Your task to perform on an android device: turn on notifications settings in the gmail app Image 0: 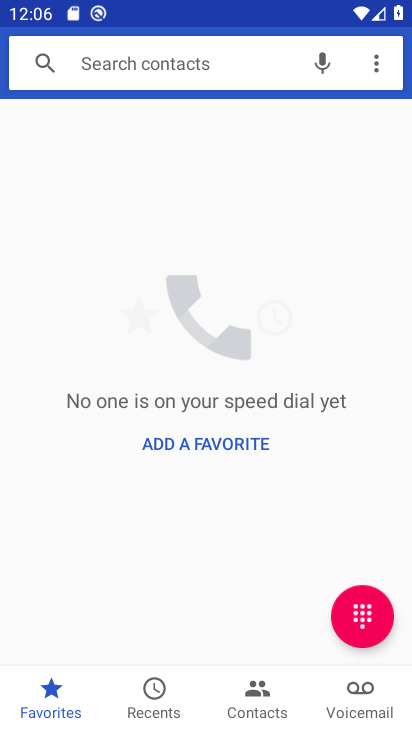
Step 0: press home button
Your task to perform on an android device: turn on notifications settings in the gmail app Image 1: 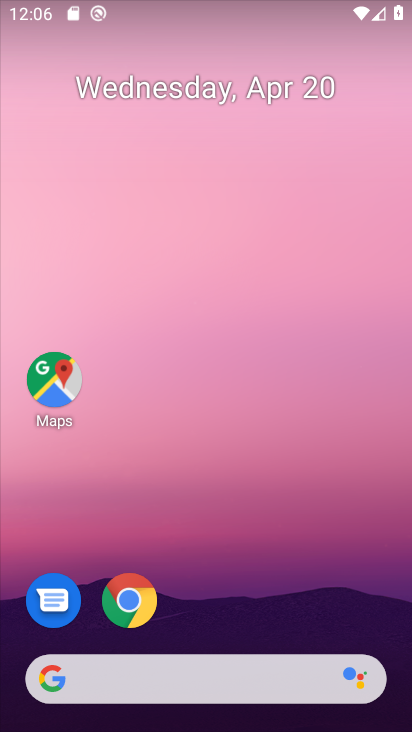
Step 1: drag from (347, 552) to (356, 164)
Your task to perform on an android device: turn on notifications settings in the gmail app Image 2: 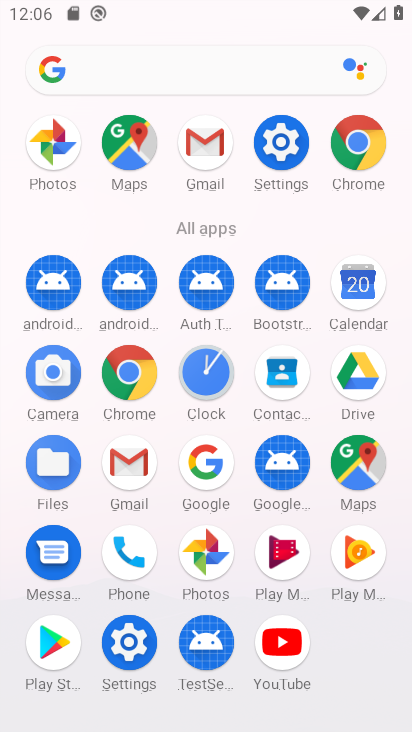
Step 2: click (139, 474)
Your task to perform on an android device: turn on notifications settings in the gmail app Image 3: 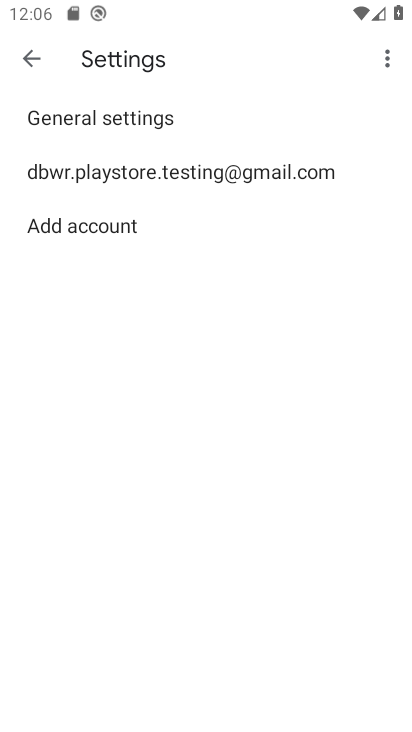
Step 3: click (231, 166)
Your task to perform on an android device: turn on notifications settings in the gmail app Image 4: 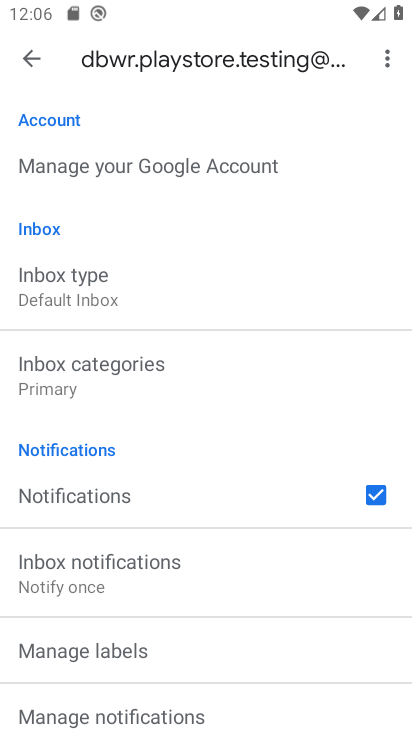
Step 4: click (125, 483)
Your task to perform on an android device: turn on notifications settings in the gmail app Image 5: 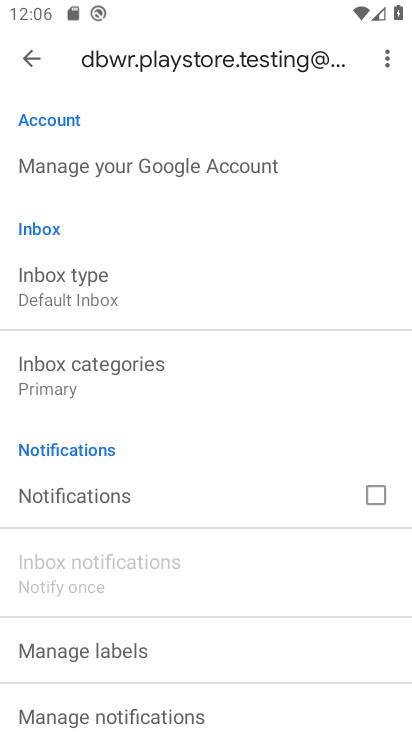
Step 5: click (125, 483)
Your task to perform on an android device: turn on notifications settings in the gmail app Image 6: 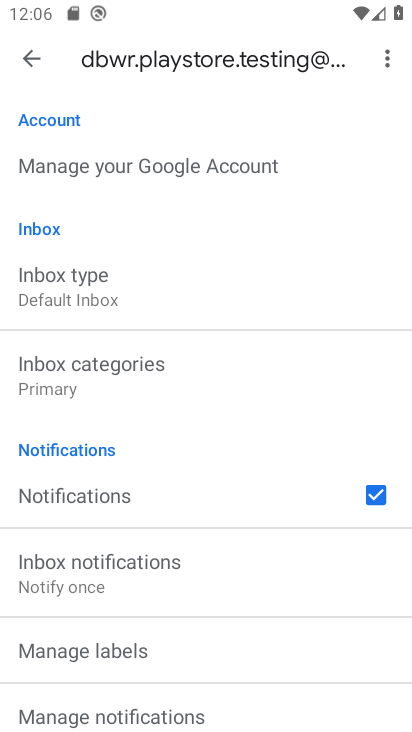
Step 6: drag from (165, 508) to (186, 410)
Your task to perform on an android device: turn on notifications settings in the gmail app Image 7: 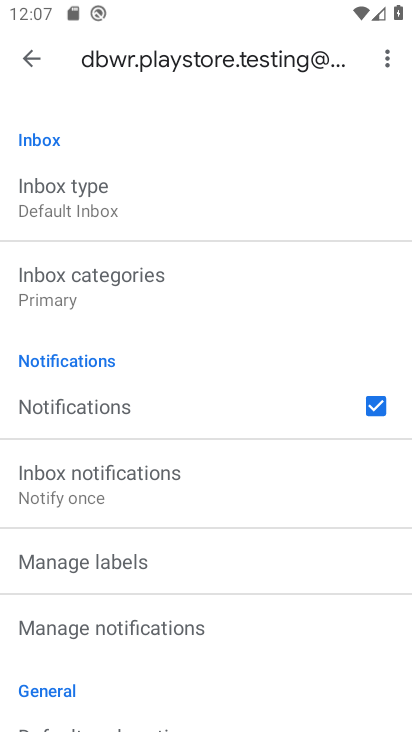
Step 7: click (30, 360)
Your task to perform on an android device: turn on notifications settings in the gmail app Image 8: 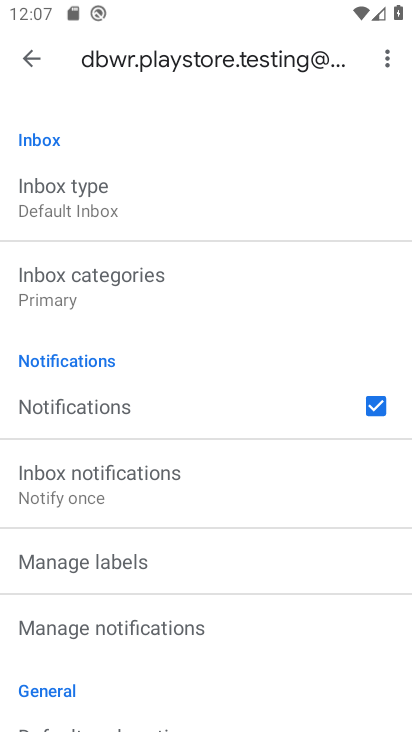
Step 8: task complete